Your task to perform on an android device: refresh tabs in the chrome app Image 0: 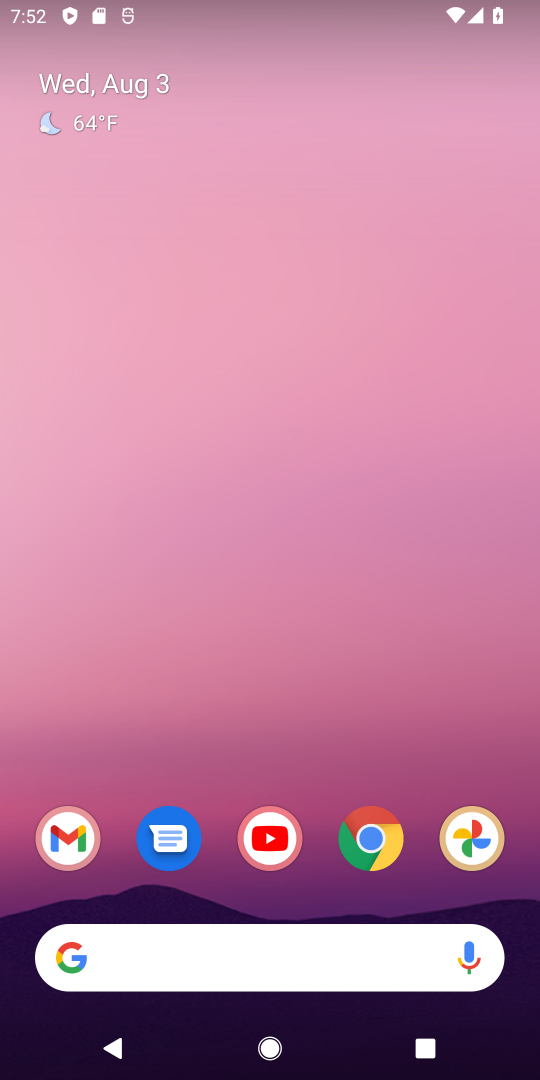
Step 0: click (373, 845)
Your task to perform on an android device: refresh tabs in the chrome app Image 1: 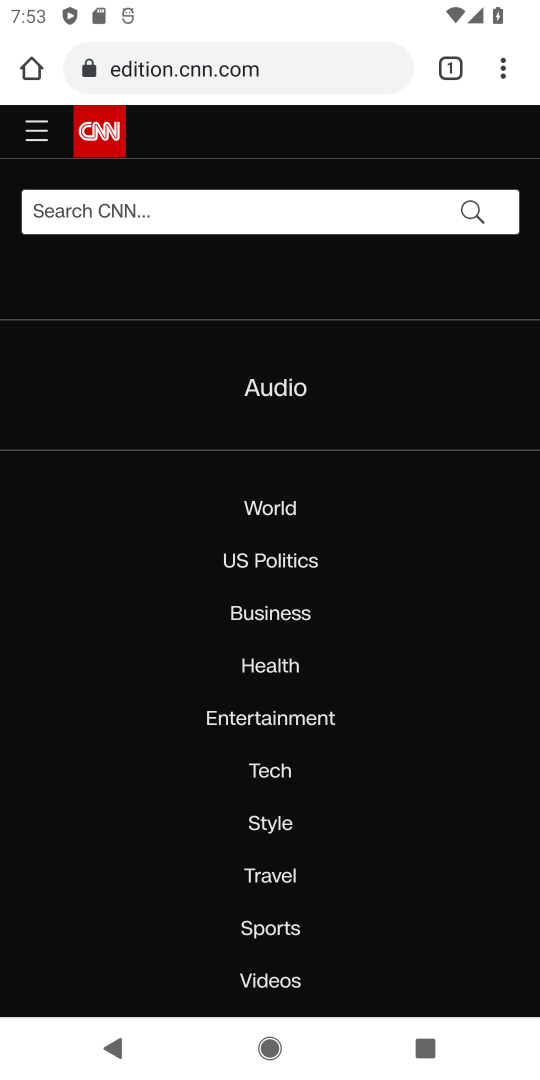
Step 1: click (508, 70)
Your task to perform on an android device: refresh tabs in the chrome app Image 2: 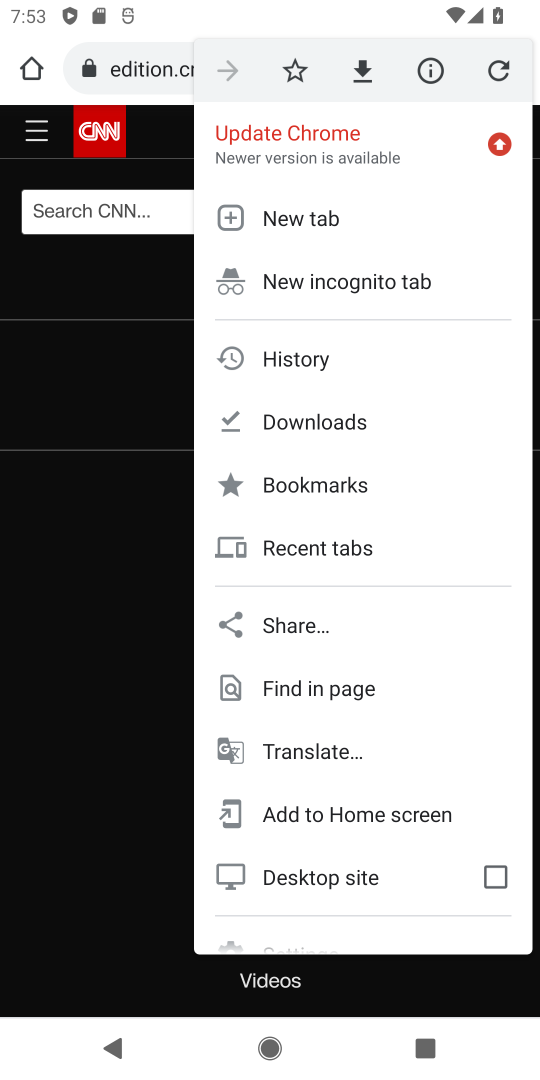
Step 2: click (511, 68)
Your task to perform on an android device: refresh tabs in the chrome app Image 3: 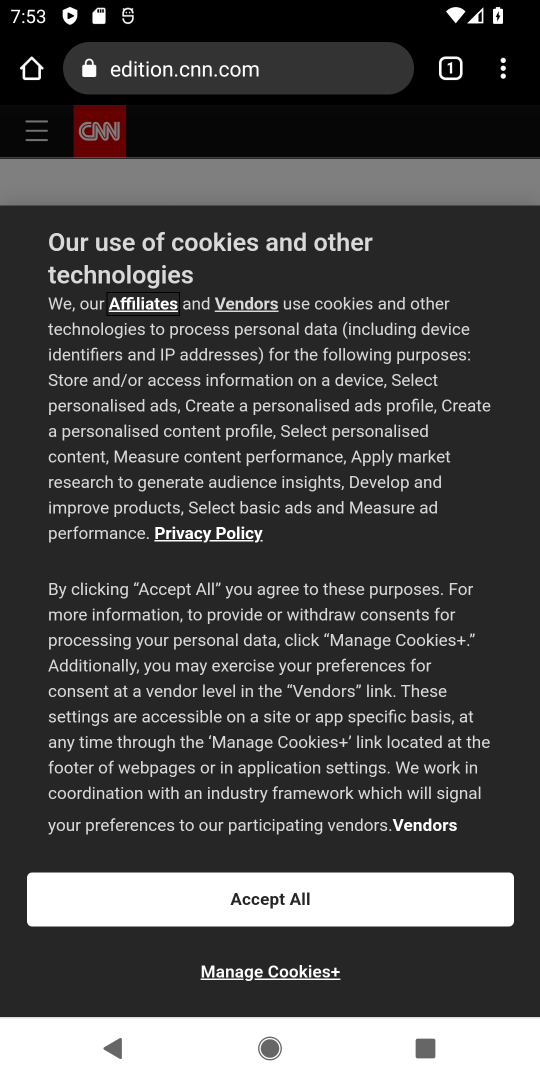
Step 3: task complete